Your task to perform on an android device: toggle javascript in the chrome app Image 0: 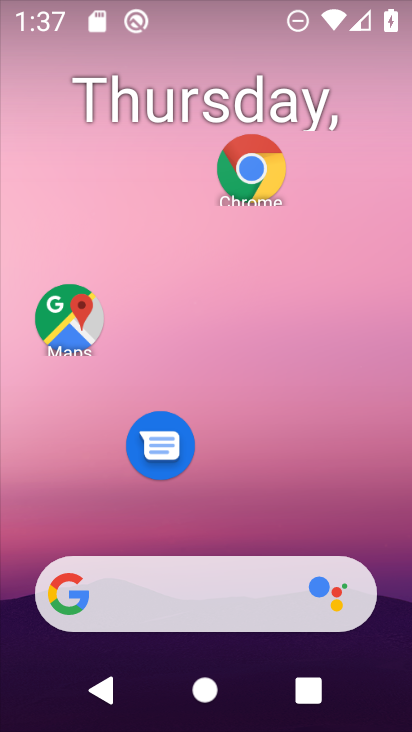
Step 0: drag from (275, 613) to (213, 228)
Your task to perform on an android device: toggle javascript in the chrome app Image 1: 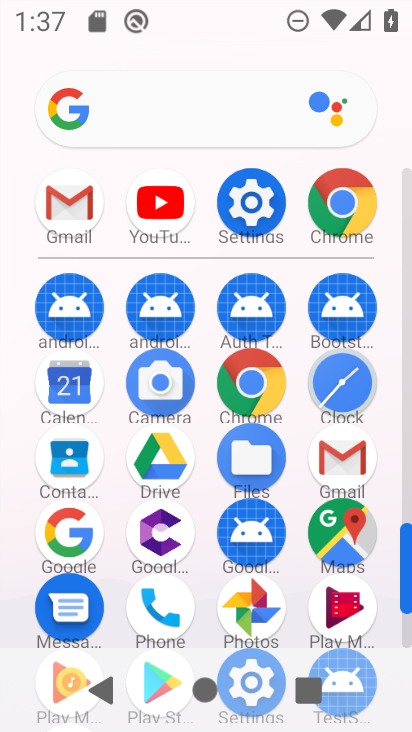
Step 1: click (348, 203)
Your task to perform on an android device: toggle javascript in the chrome app Image 2: 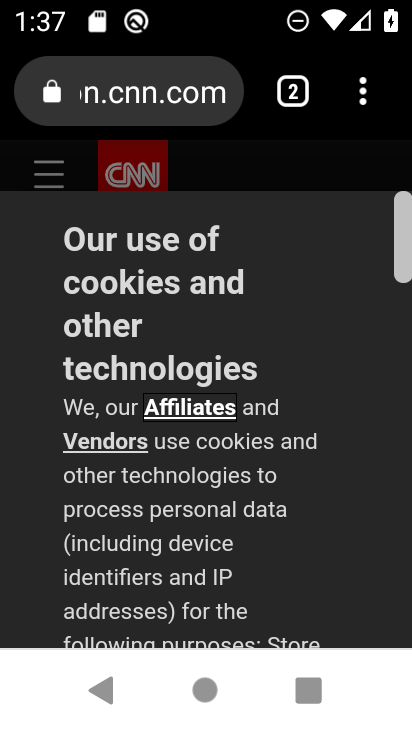
Step 2: click (358, 84)
Your task to perform on an android device: toggle javascript in the chrome app Image 3: 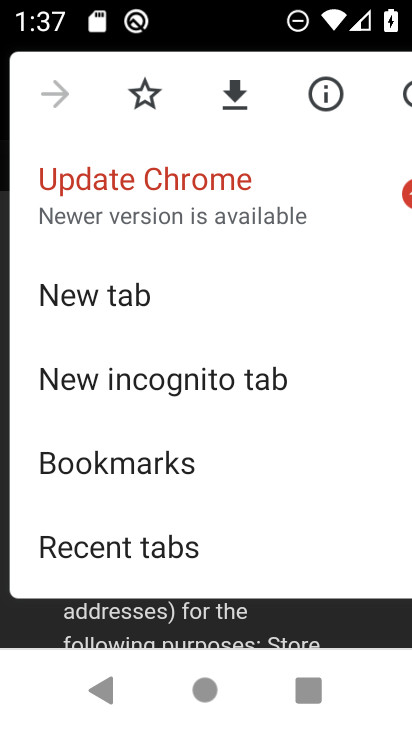
Step 3: drag from (205, 488) to (283, 138)
Your task to perform on an android device: toggle javascript in the chrome app Image 4: 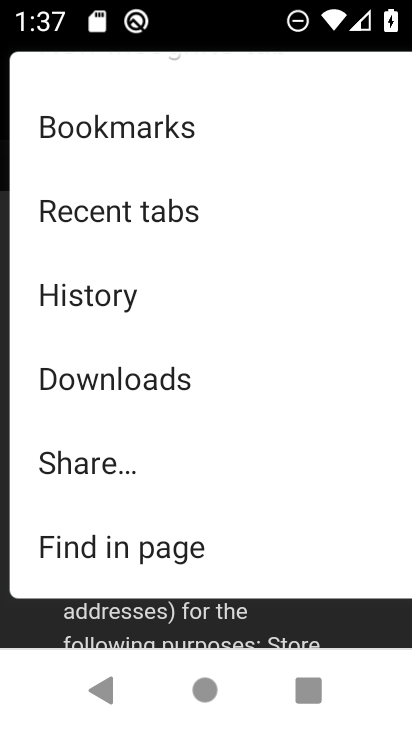
Step 4: drag from (158, 461) to (264, 202)
Your task to perform on an android device: toggle javascript in the chrome app Image 5: 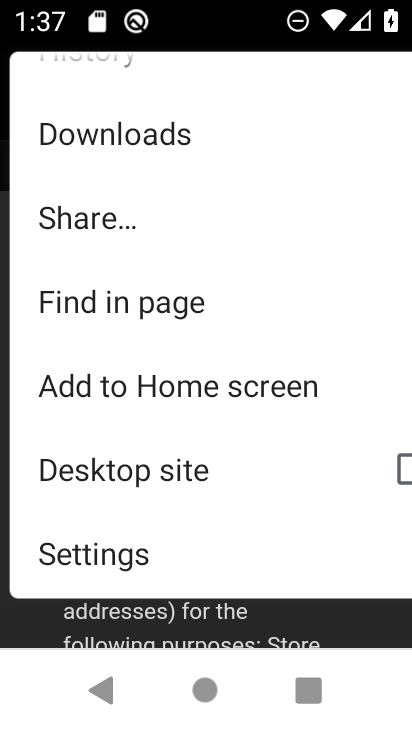
Step 5: click (99, 545)
Your task to perform on an android device: toggle javascript in the chrome app Image 6: 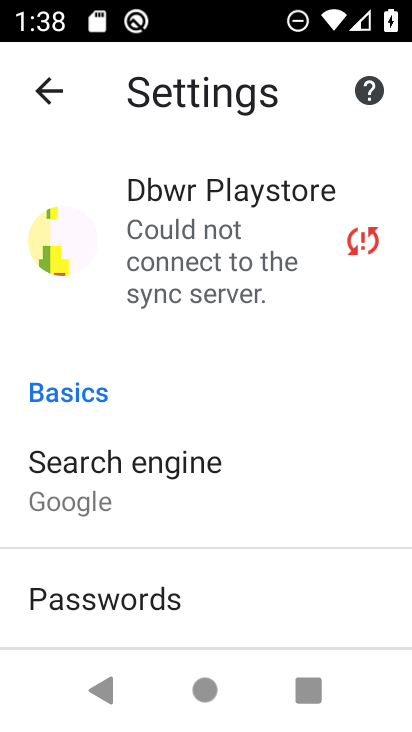
Step 6: drag from (136, 545) to (213, 403)
Your task to perform on an android device: toggle javascript in the chrome app Image 7: 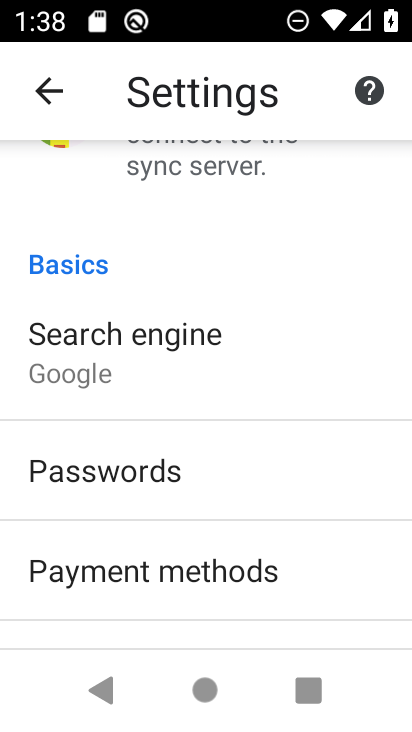
Step 7: drag from (154, 503) to (301, 246)
Your task to perform on an android device: toggle javascript in the chrome app Image 8: 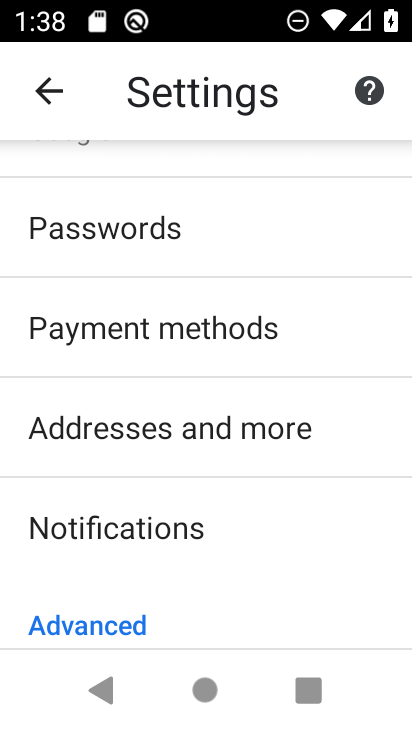
Step 8: drag from (173, 513) to (291, 283)
Your task to perform on an android device: toggle javascript in the chrome app Image 9: 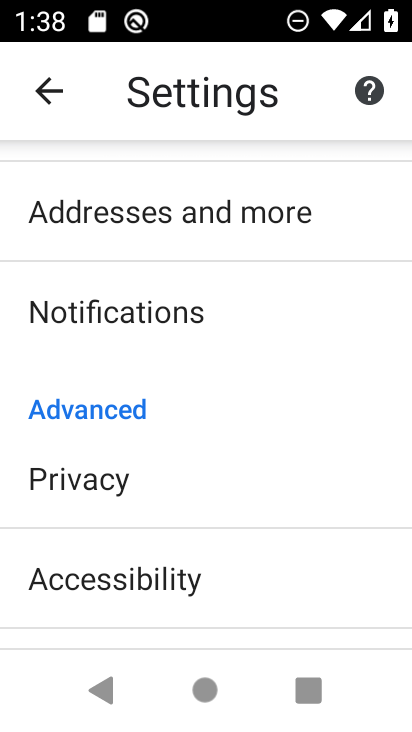
Step 9: drag from (200, 484) to (308, 237)
Your task to perform on an android device: toggle javascript in the chrome app Image 10: 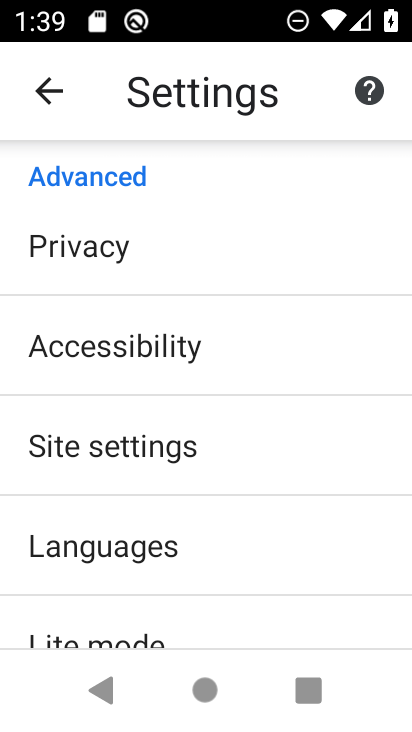
Step 10: click (128, 439)
Your task to perform on an android device: toggle javascript in the chrome app Image 11: 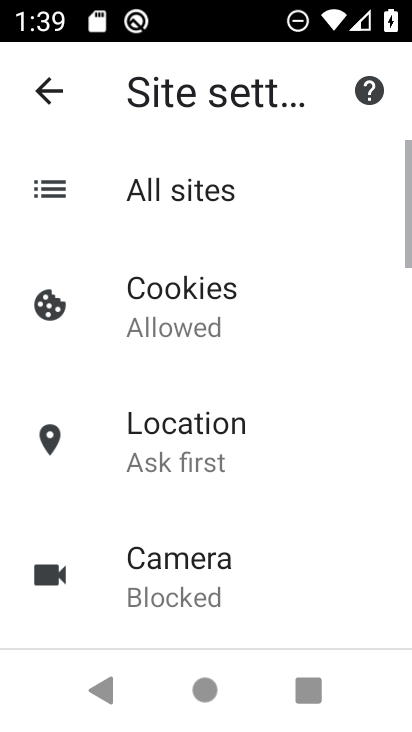
Step 11: drag from (189, 516) to (227, 263)
Your task to perform on an android device: toggle javascript in the chrome app Image 12: 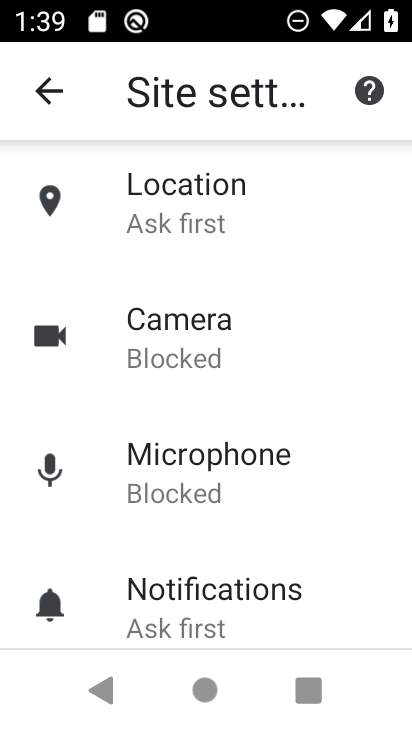
Step 12: drag from (192, 481) to (232, 214)
Your task to perform on an android device: toggle javascript in the chrome app Image 13: 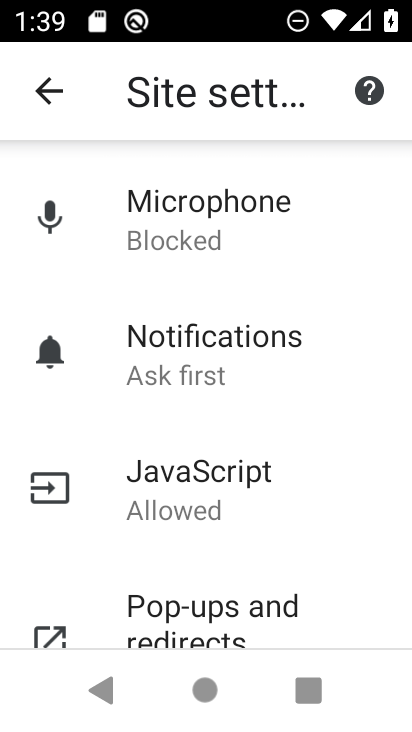
Step 13: click (191, 475)
Your task to perform on an android device: toggle javascript in the chrome app Image 14: 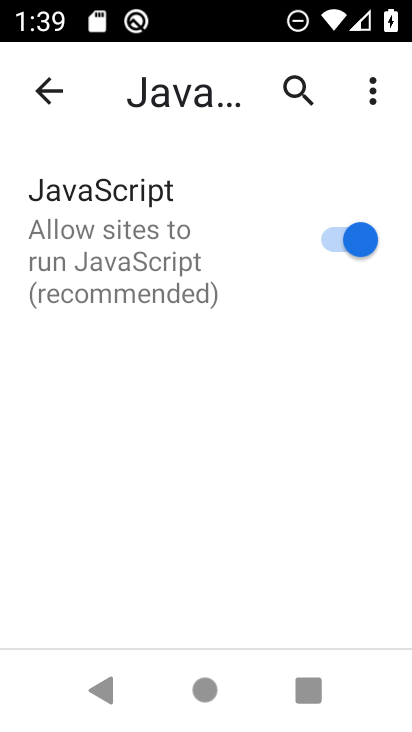
Step 14: task complete